Your task to perform on an android device: see creations saved in the google photos Image 0: 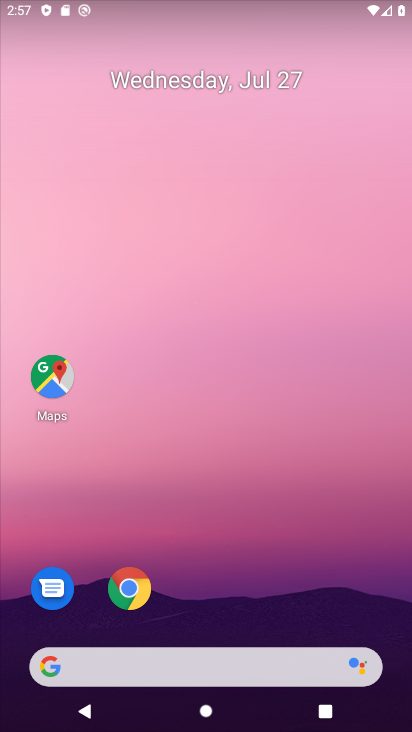
Step 0: drag from (246, 620) to (204, 30)
Your task to perform on an android device: see creations saved in the google photos Image 1: 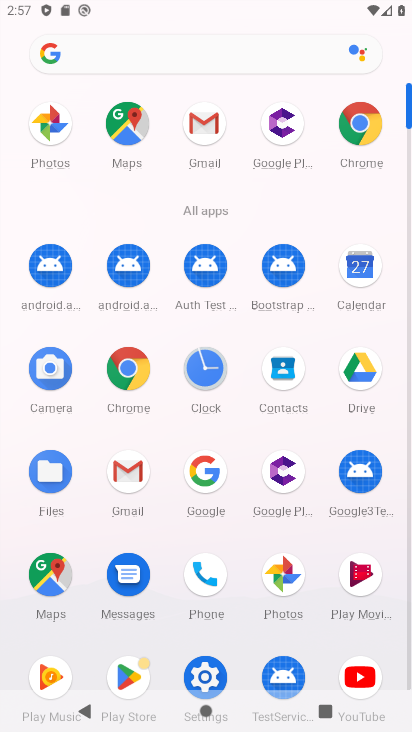
Step 1: click (59, 137)
Your task to perform on an android device: see creations saved in the google photos Image 2: 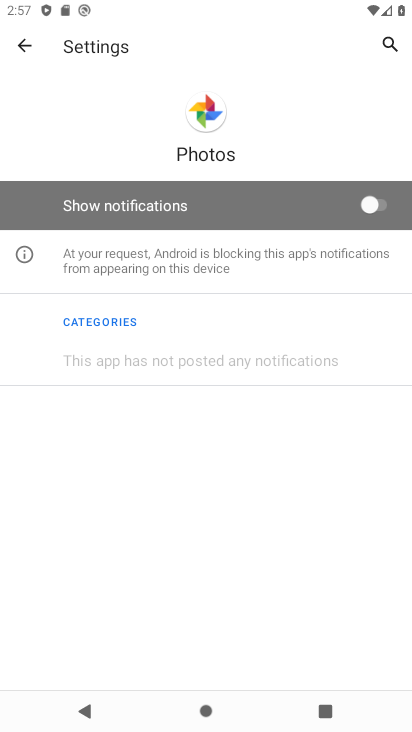
Step 2: click (29, 58)
Your task to perform on an android device: see creations saved in the google photos Image 3: 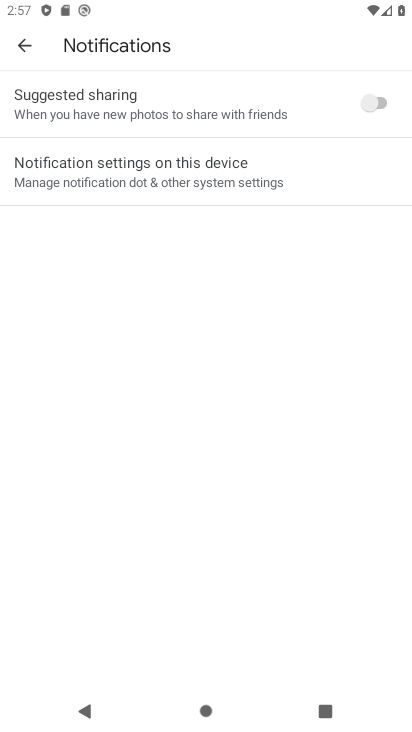
Step 3: click (30, 56)
Your task to perform on an android device: see creations saved in the google photos Image 4: 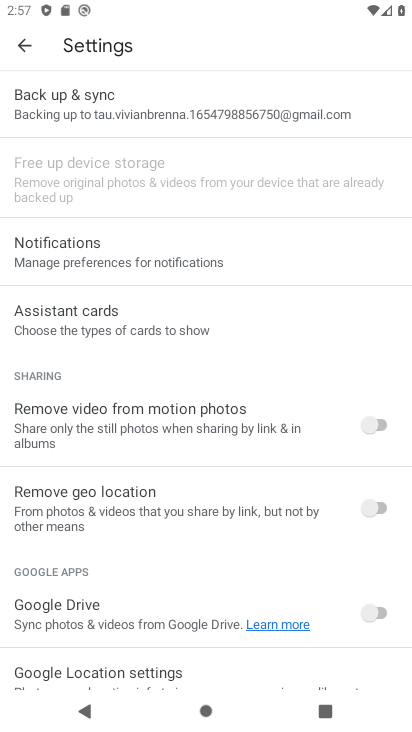
Step 4: click (32, 55)
Your task to perform on an android device: see creations saved in the google photos Image 5: 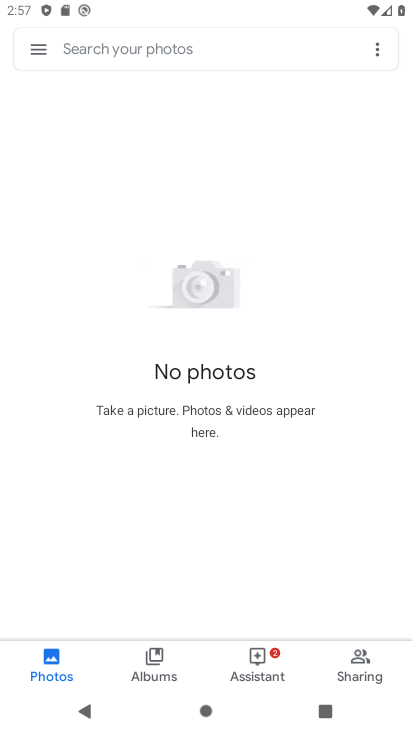
Step 5: click (96, 48)
Your task to perform on an android device: see creations saved in the google photos Image 6: 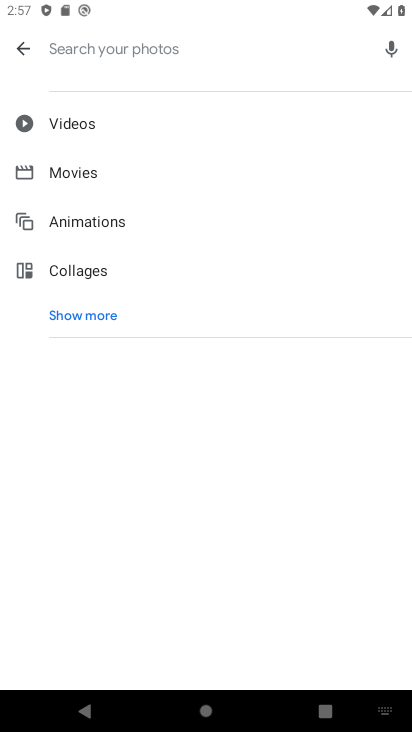
Step 6: click (58, 314)
Your task to perform on an android device: see creations saved in the google photos Image 7: 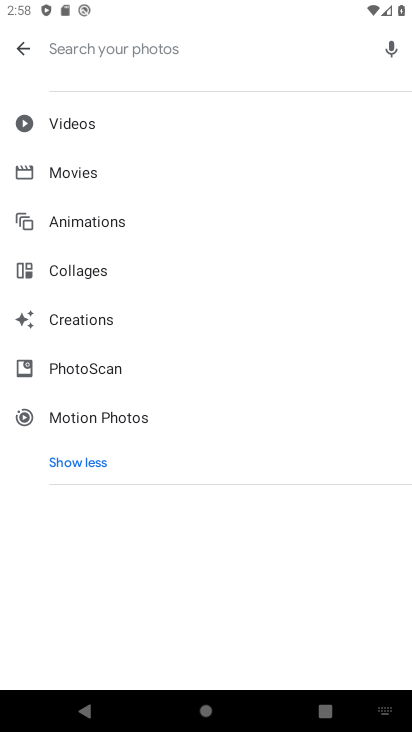
Step 7: click (70, 322)
Your task to perform on an android device: see creations saved in the google photos Image 8: 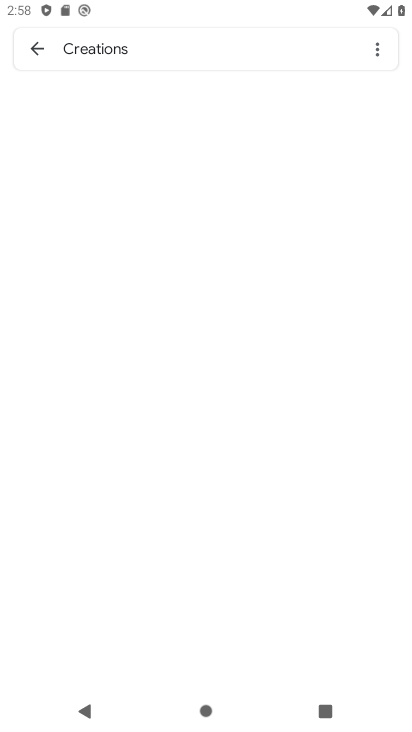
Step 8: click (70, 322)
Your task to perform on an android device: see creations saved in the google photos Image 9: 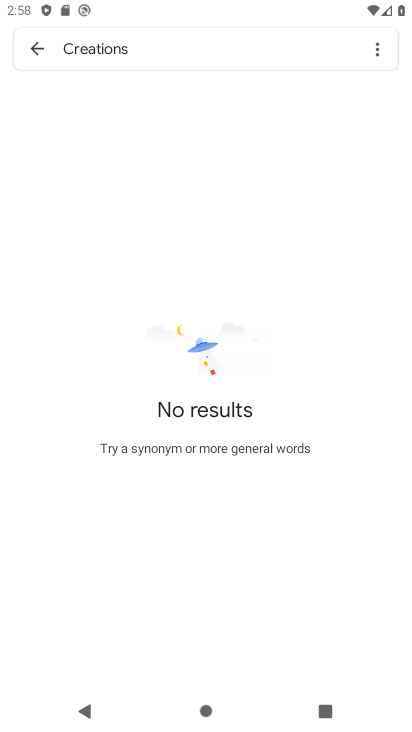
Step 9: task complete